Your task to perform on an android device: change the clock display to digital Image 0: 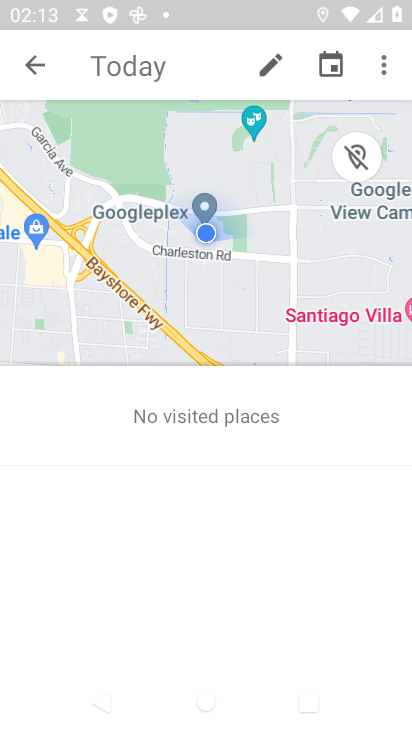
Step 0: press home button
Your task to perform on an android device: change the clock display to digital Image 1: 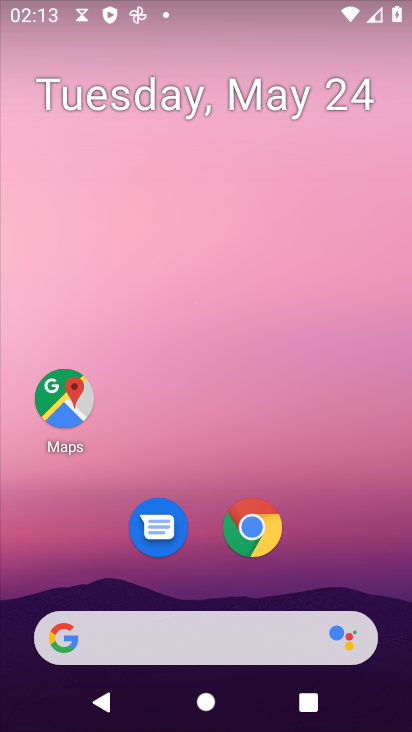
Step 1: drag from (193, 656) to (217, 167)
Your task to perform on an android device: change the clock display to digital Image 2: 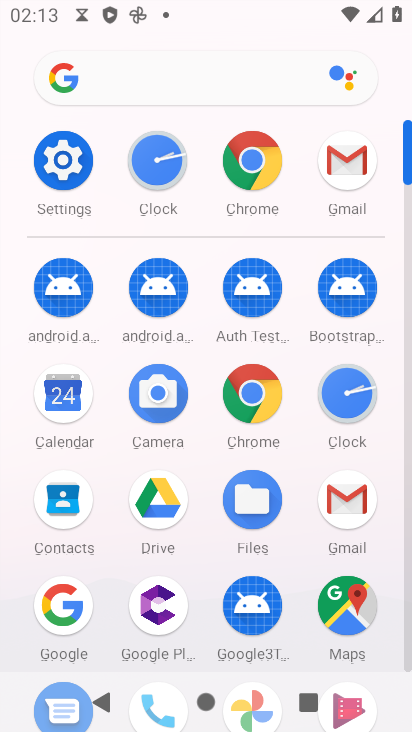
Step 2: click (344, 406)
Your task to perform on an android device: change the clock display to digital Image 3: 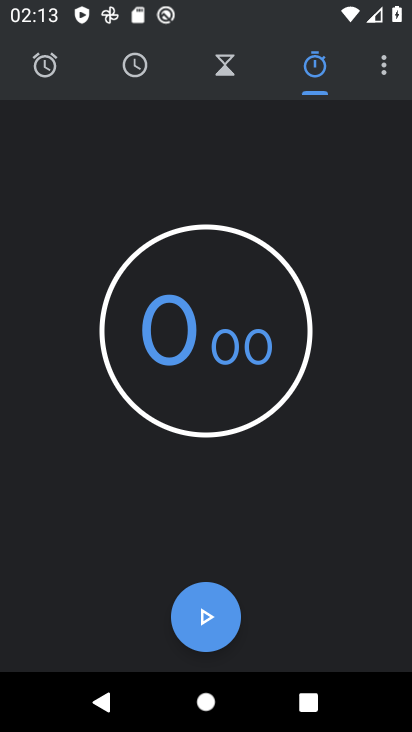
Step 3: click (383, 69)
Your task to perform on an android device: change the clock display to digital Image 4: 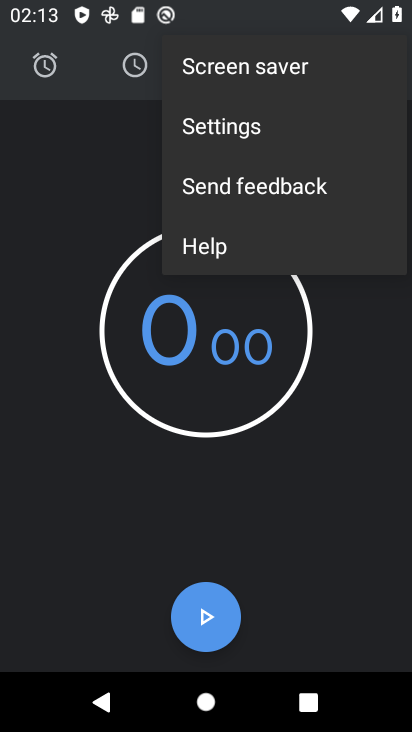
Step 4: click (229, 130)
Your task to perform on an android device: change the clock display to digital Image 5: 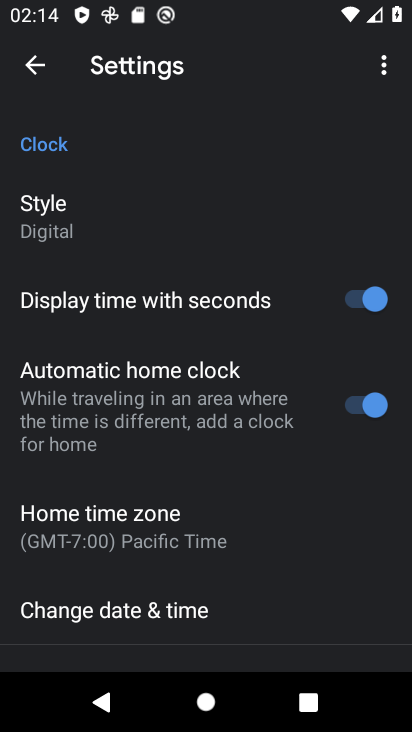
Step 5: task complete